Your task to perform on an android device: open wifi settings Image 0: 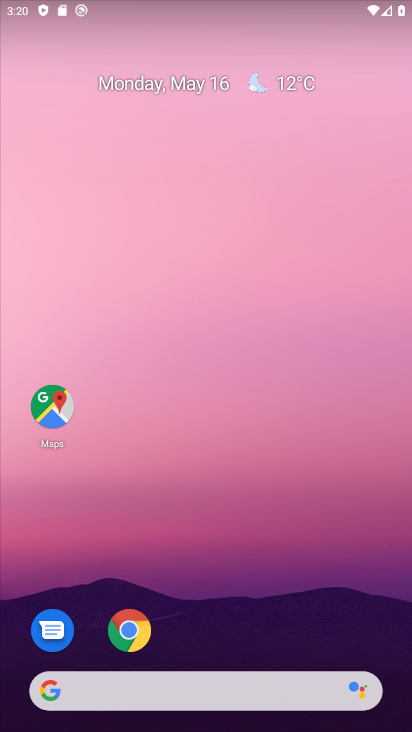
Step 0: drag from (194, 622) to (268, 244)
Your task to perform on an android device: open wifi settings Image 1: 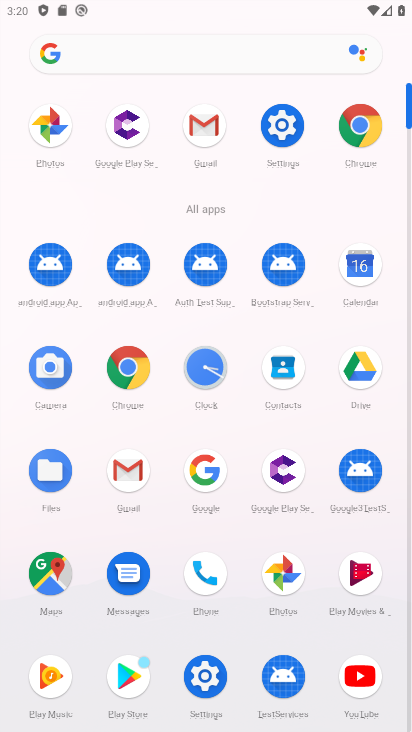
Step 1: click (204, 677)
Your task to perform on an android device: open wifi settings Image 2: 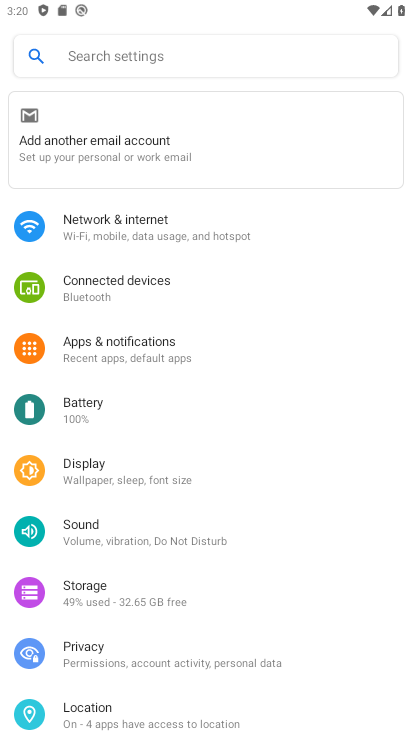
Step 2: click (135, 237)
Your task to perform on an android device: open wifi settings Image 3: 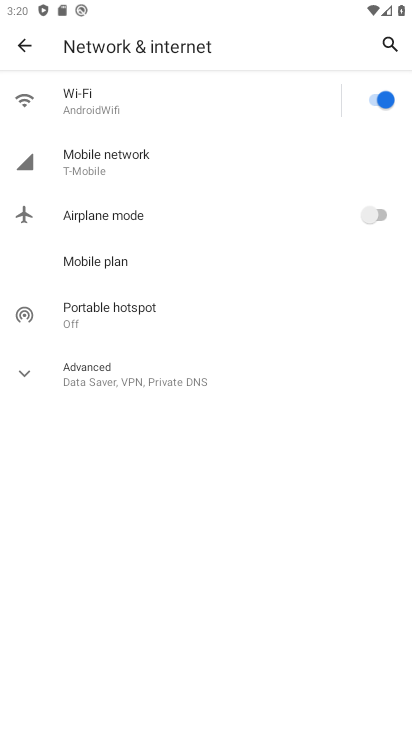
Step 3: click (131, 124)
Your task to perform on an android device: open wifi settings Image 4: 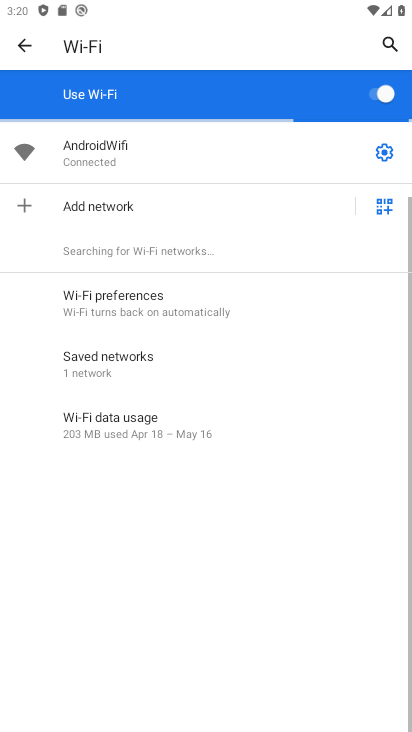
Step 4: task complete